Your task to perform on an android device: Open calendar and show me the second week of next month Image 0: 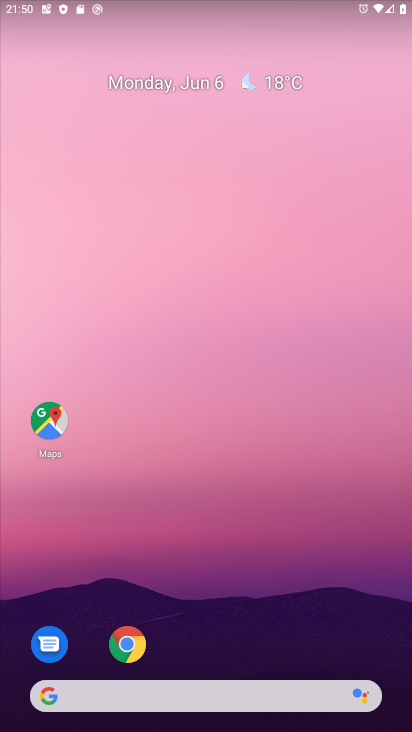
Step 0: drag from (374, 577) to (300, 120)
Your task to perform on an android device: Open calendar and show me the second week of next month Image 1: 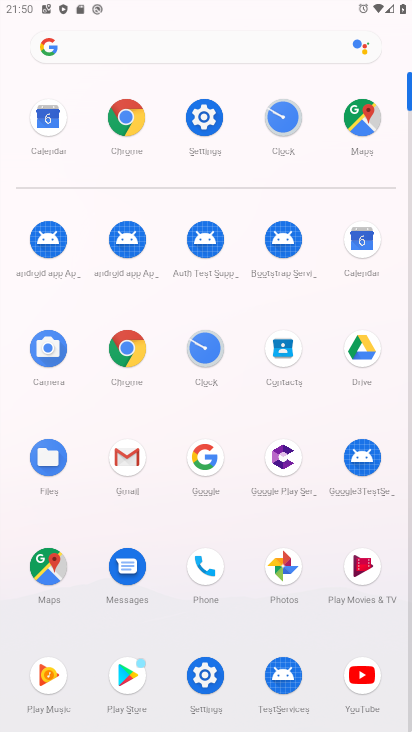
Step 1: click (368, 246)
Your task to perform on an android device: Open calendar and show me the second week of next month Image 2: 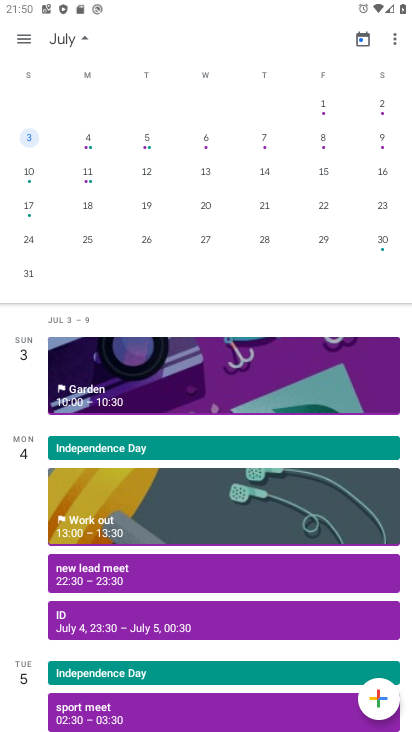
Step 2: drag from (386, 186) to (4, 155)
Your task to perform on an android device: Open calendar and show me the second week of next month Image 3: 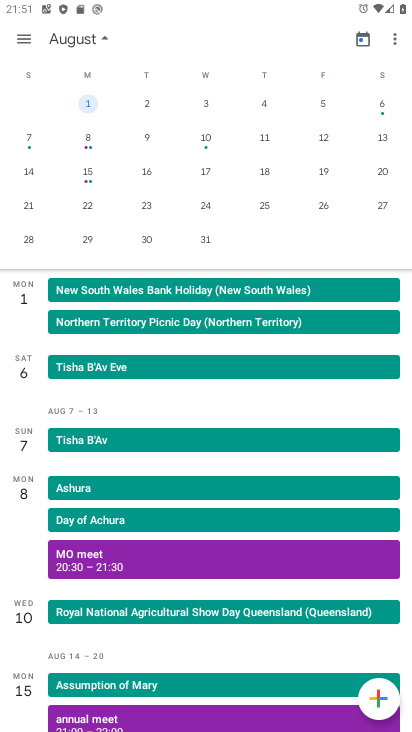
Step 3: drag from (30, 167) to (386, 171)
Your task to perform on an android device: Open calendar and show me the second week of next month Image 4: 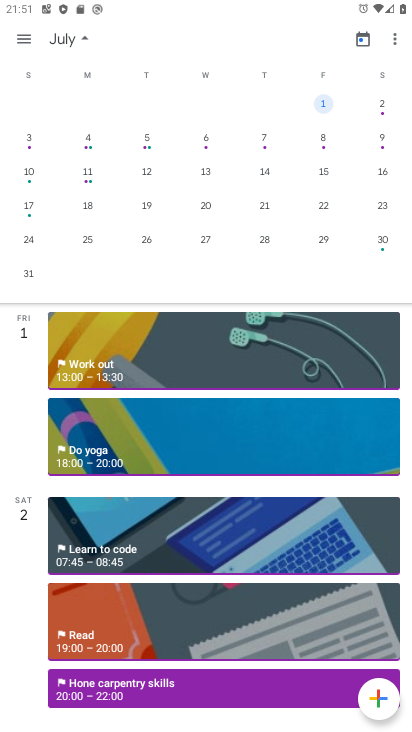
Step 4: click (29, 139)
Your task to perform on an android device: Open calendar and show me the second week of next month Image 5: 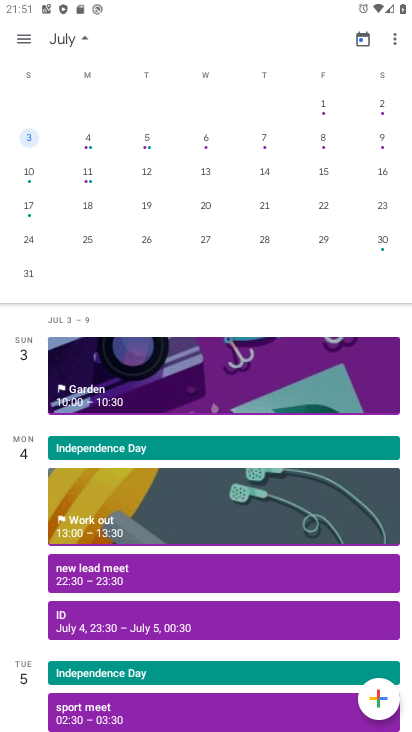
Step 5: task complete